Your task to perform on an android device: Open sound settings Image 0: 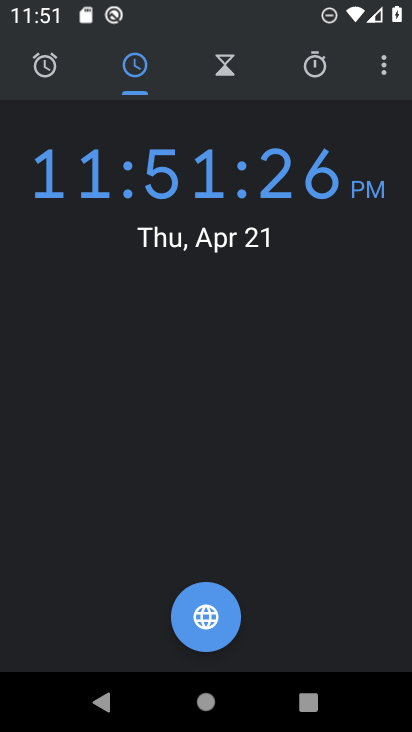
Step 0: press home button
Your task to perform on an android device: Open sound settings Image 1: 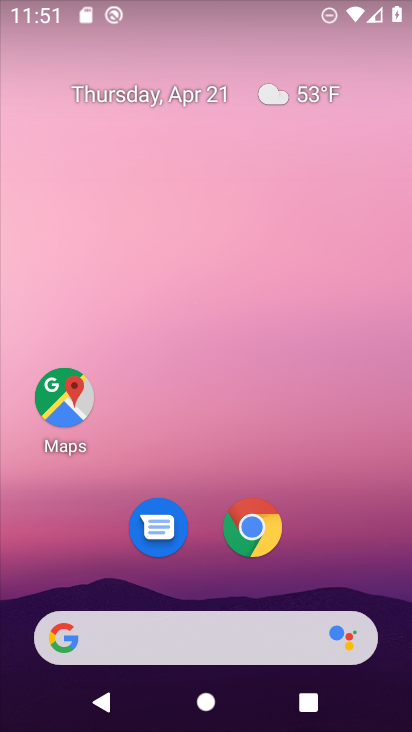
Step 1: drag from (358, 532) to (370, 80)
Your task to perform on an android device: Open sound settings Image 2: 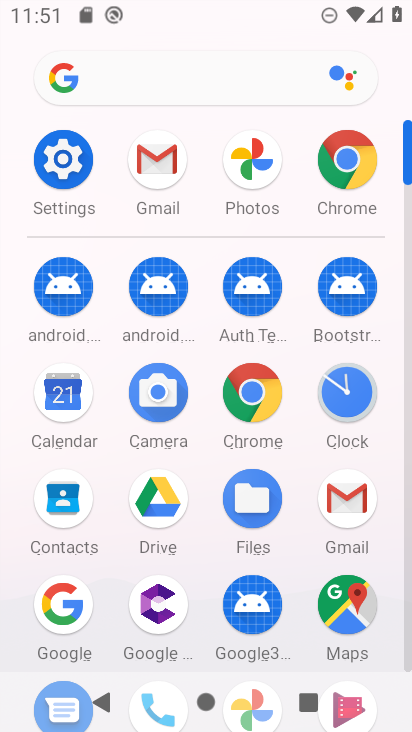
Step 2: click (65, 167)
Your task to perform on an android device: Open sound settings Image 3: 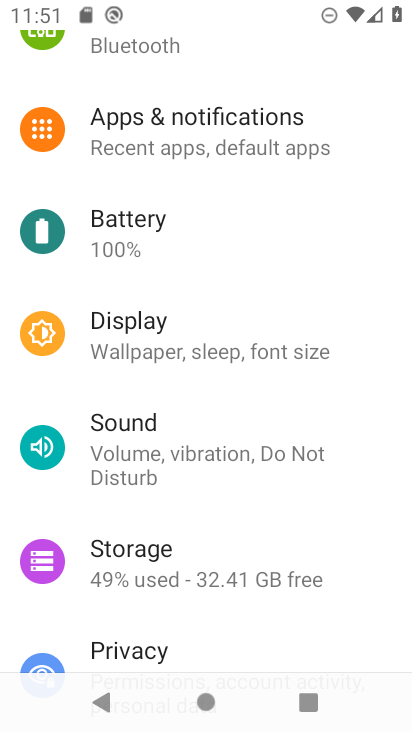
Step 3: drag from (376, 277) to (375, 377)
Your task to perform on an android device: Open sound settings Image 4: 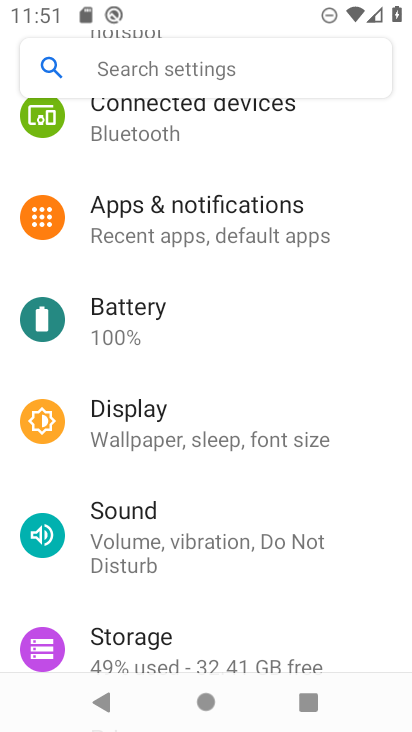
Step 4: drag from (378, 273) to (378, 390)
Your task to perform on an android device: Open sound settings Image 5: 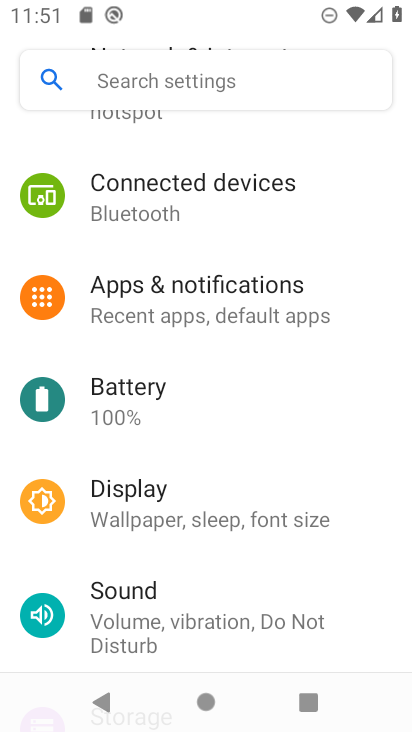
Step 5: drag from (366, 280) to (366, 378)
Your task to perform on an android device: Open sound settings Image 6: 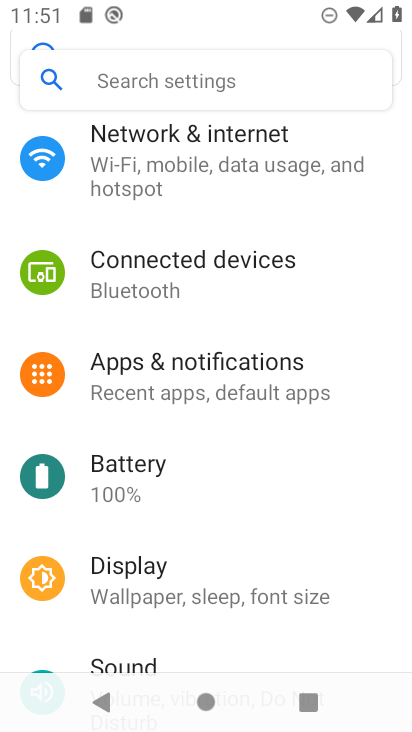
Step 6: drag from (370, 285) to (375, 421)
Your task to perform on an android device: Open sound settings Image 7: 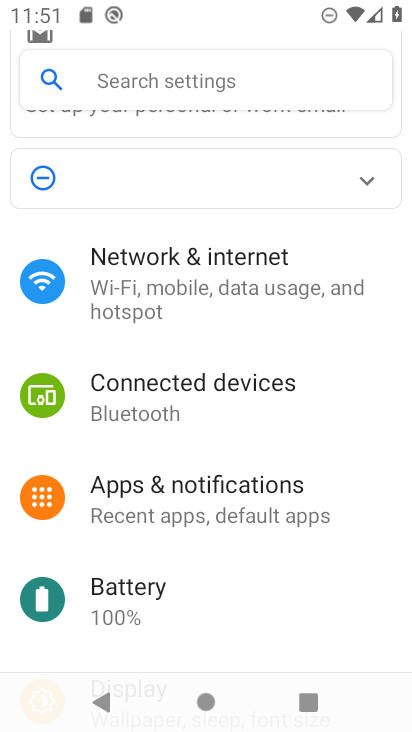
Step 7: drag from (378, 266) to (362, 544)
Your task to perform on an android device: Open sound settings Image 8: 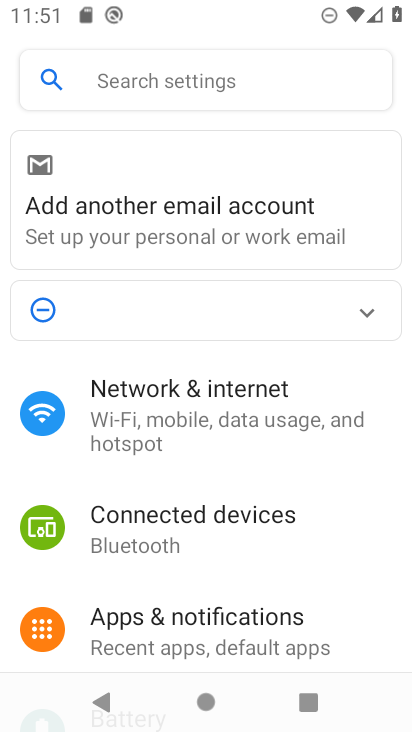
Step 8: drag from (365, 586) to (372, 447)
Your task to perform on an android device: Open sound settings Image 9: 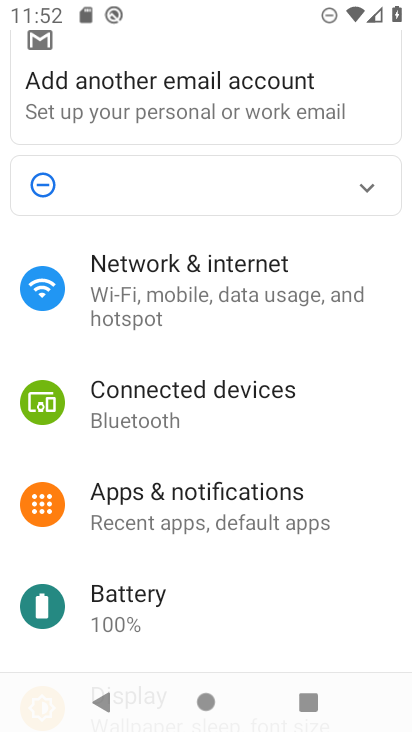
Step 9: drag from (364, 591) to (361, 444)
Your task to perform on an android device: Open sound settings Image 10: 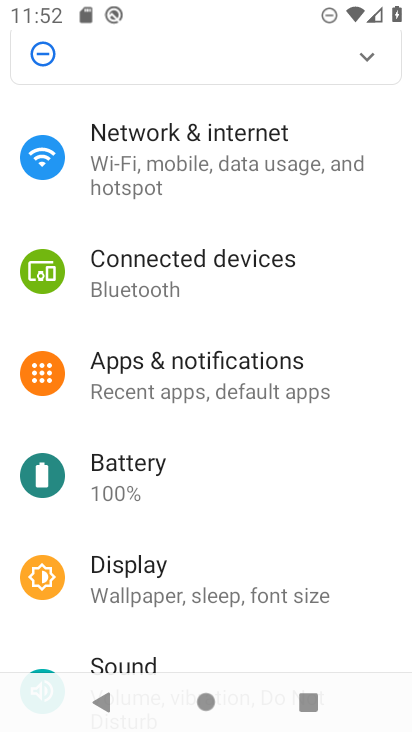
Step 10: drag from (366, 596) to (361, 452)
Your task to perform on an android device: Open sound settings Image 11: 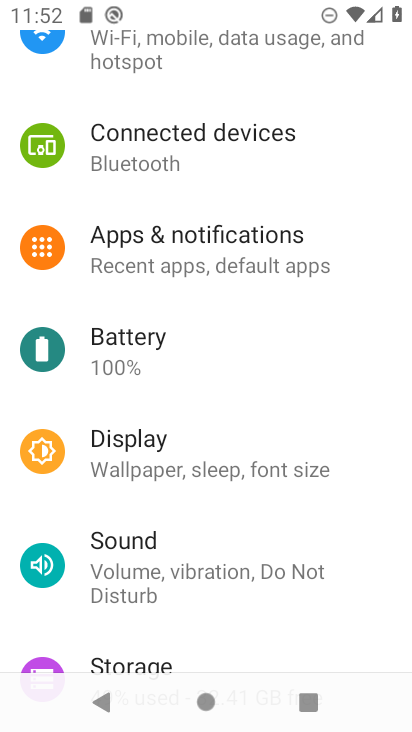
Step 11: drag from (365, 598) to (363, 456)
Your task to perform on an android device: Open sound settings Image 12: 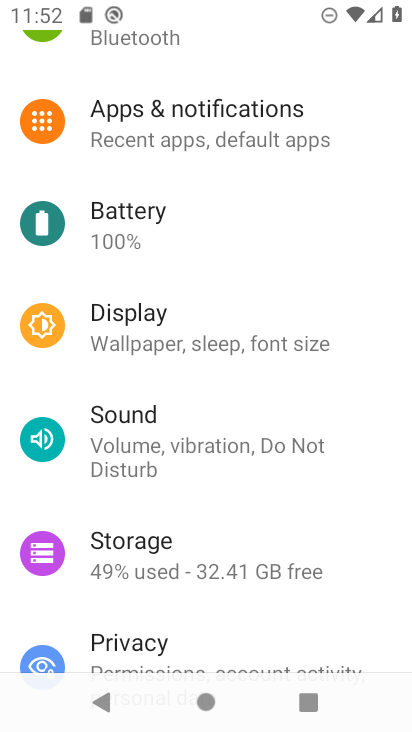
Step 12: drag from (362, 522) to (372, 416)
Your task to perform on an android device: Open sound settings Image 13: 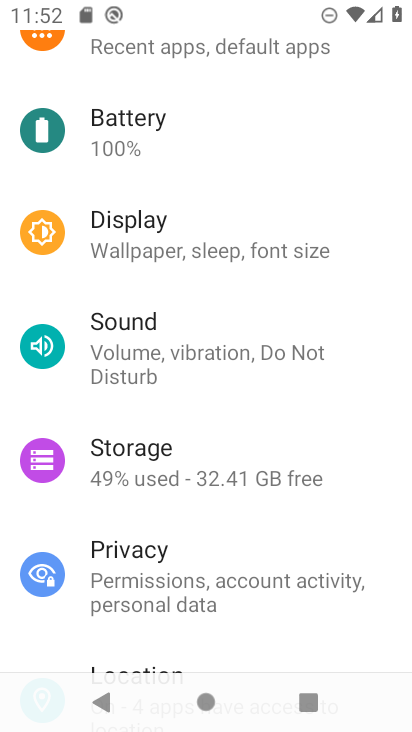
Step 13: click (214, 343)
Your task to perform on an android device: Open sound settings Image 14: 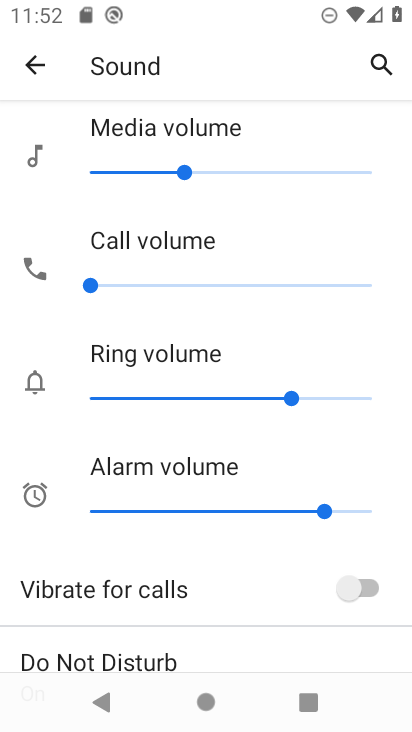
Step 14: task complete